Your task to perform on an android device: Show me popular games on the Play Store Image 0: 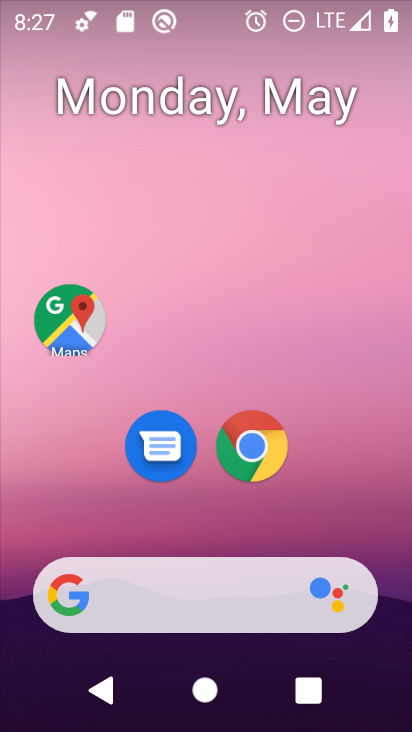
Step 0: drag from (327, 507) to (234, 133)
Your task to perform on an android device: Show me popular games on the Play Store Image 1: 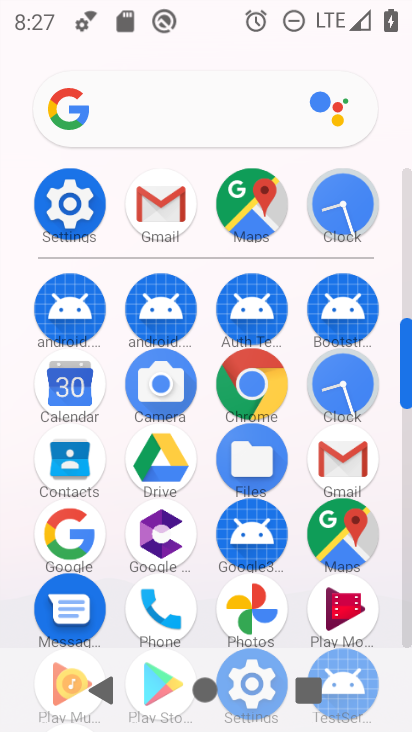
Step 1: drag from (203, 573) to (157, 258)
Your task to perform on an android device: Show me popular games on the Play Store Image 2: 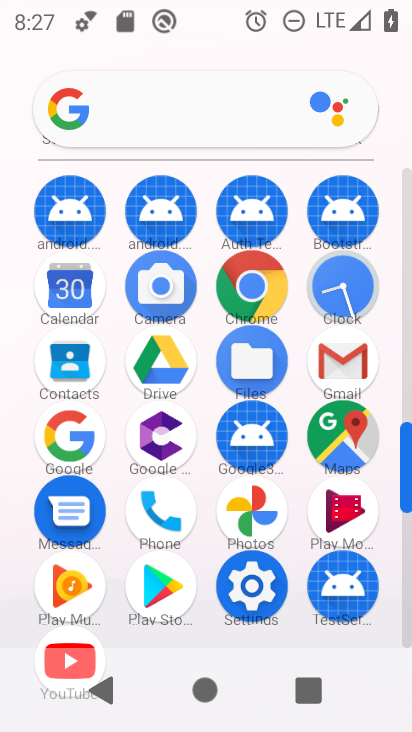
Step 2: click (173, 575)
Your task to perform on an android device: Show me popular games on the Play Store Image 3: 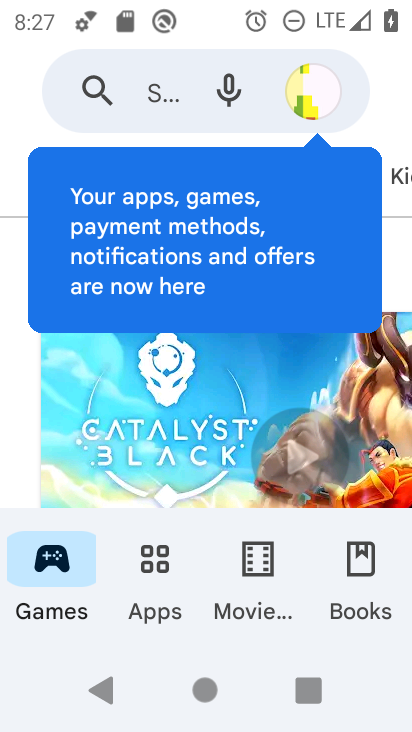
Step 3: click (8, 366)
Your task to perform on an android device: Show me popular games on the Play Store Image 4: 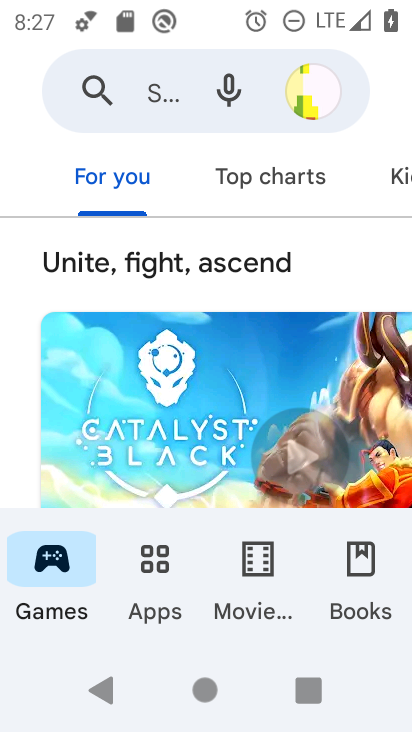
Step 4: task complete